Your task to perform on an android device: Go to Reddit.com Image 0: 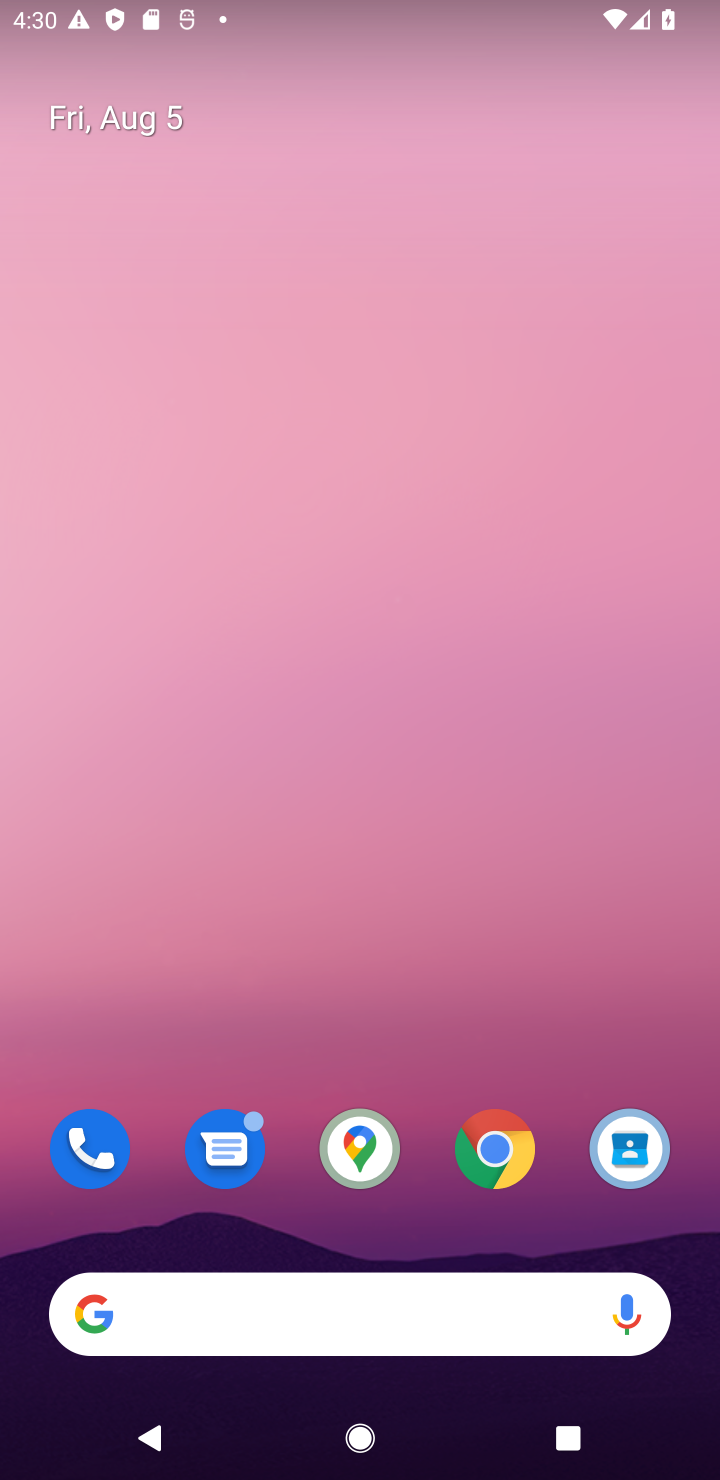
Step 0: click (500, 1140)
Your task to perform on an android device: Go to Reddit.com Image 1: 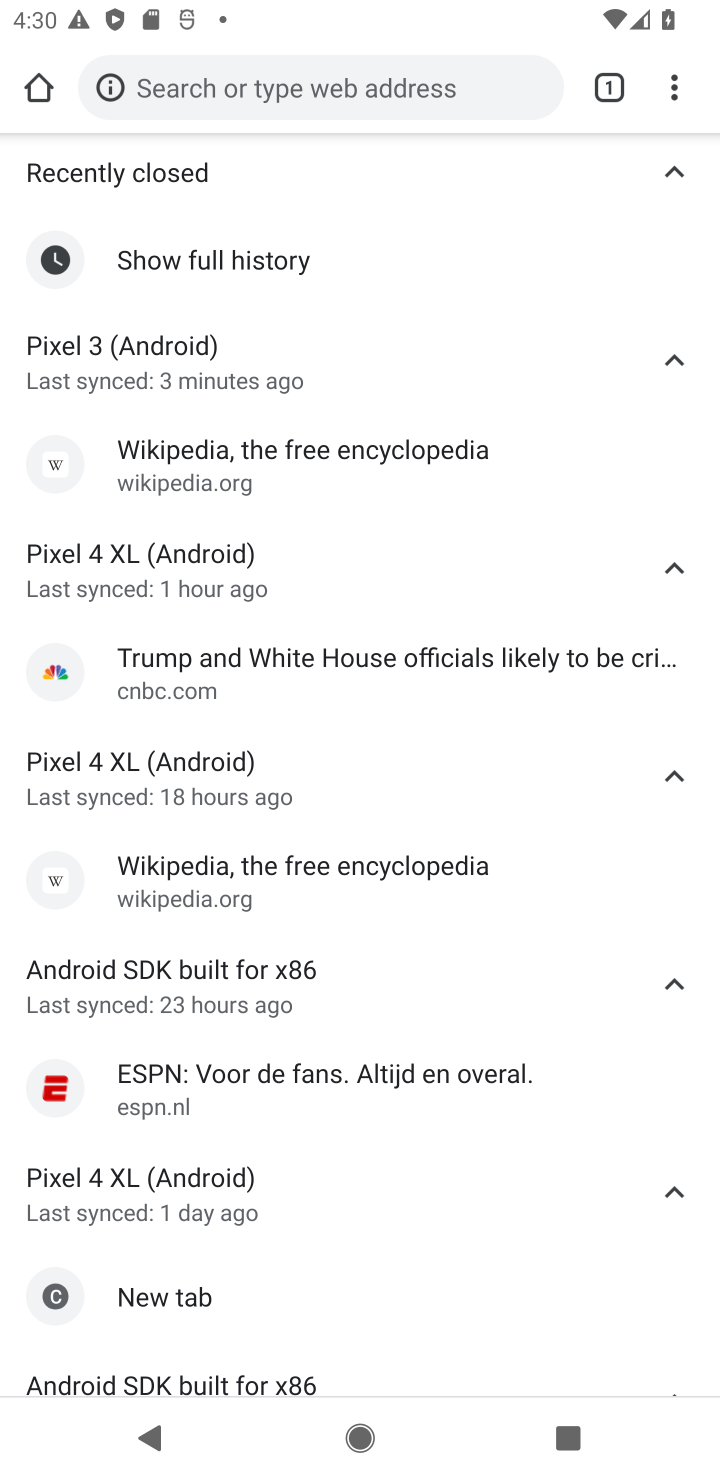
Step 1: click (607, 99)
Your task to perform on an android device: Go to Reddit.com Image 2: 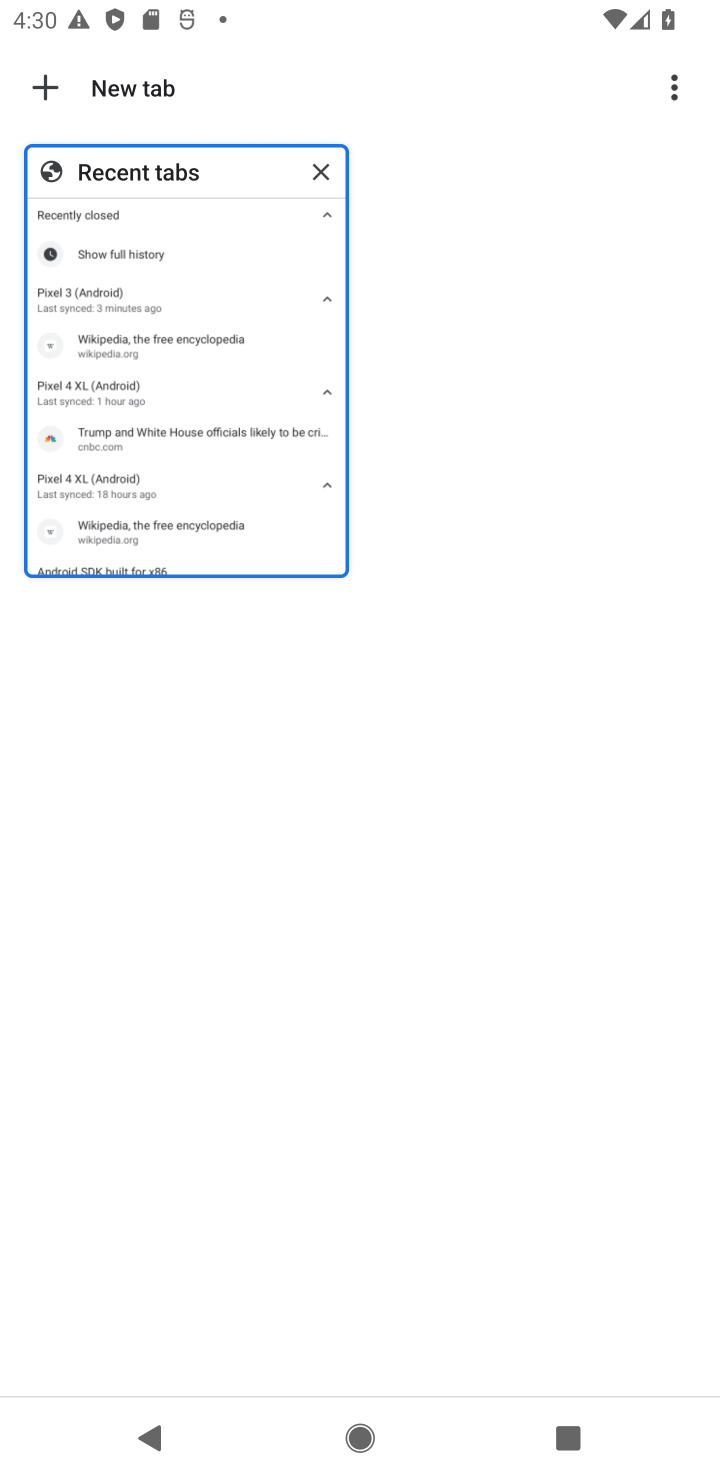
Step 2: click (61, 76)
Your task to perform on an android device: Go to Reddit.com Image 3: 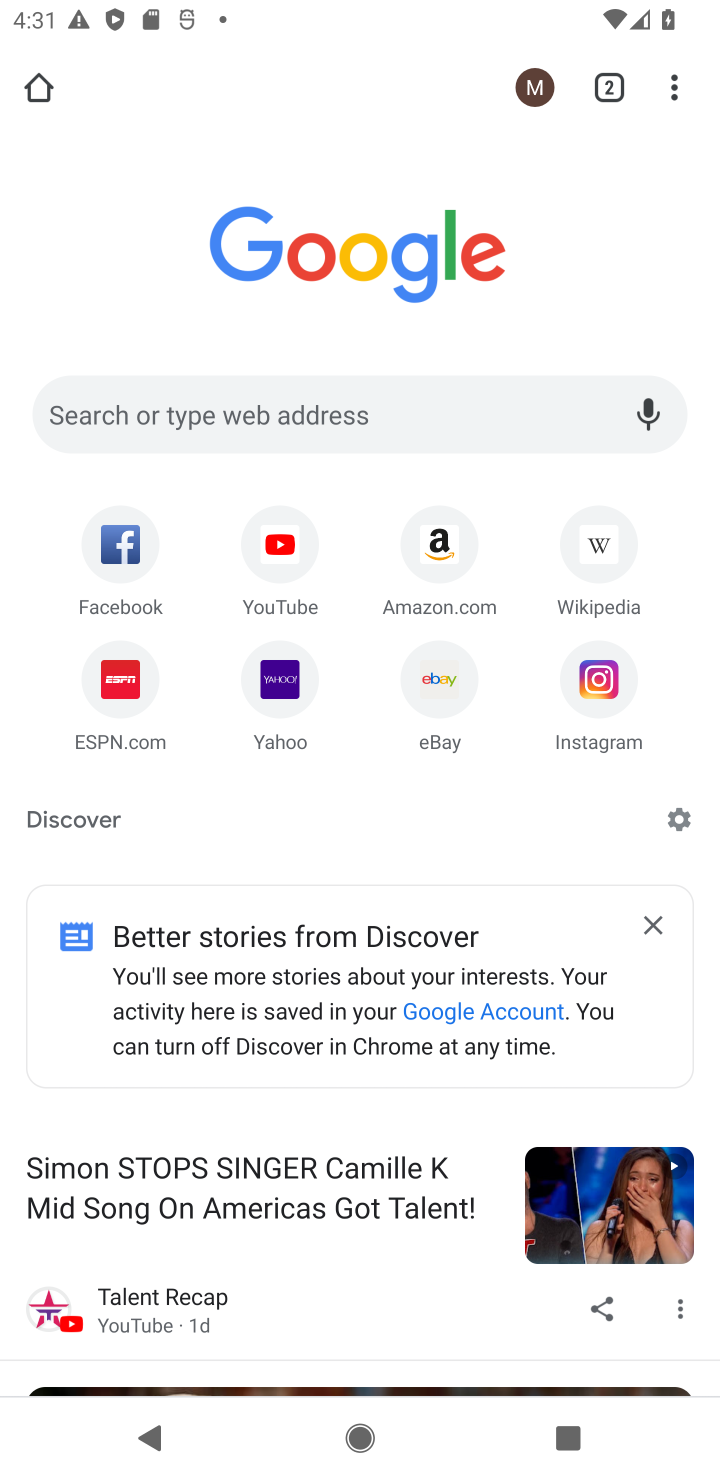
Step 3: click (196, 409)
Your task to perform on an android device: Go to Reddit.com Image 4: 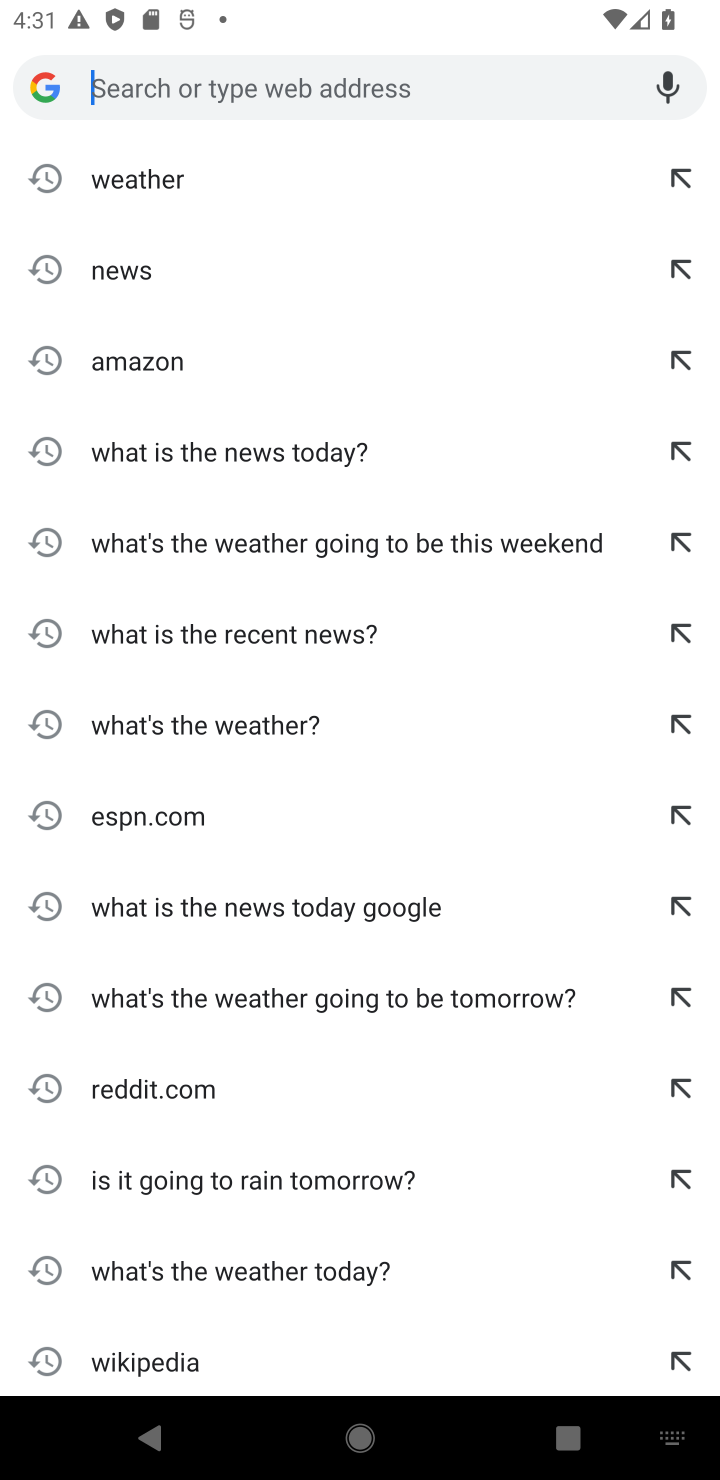
Step 4: type "reddit.com"
Your task to perform on an android device: Go to Reddit.com Image 5: 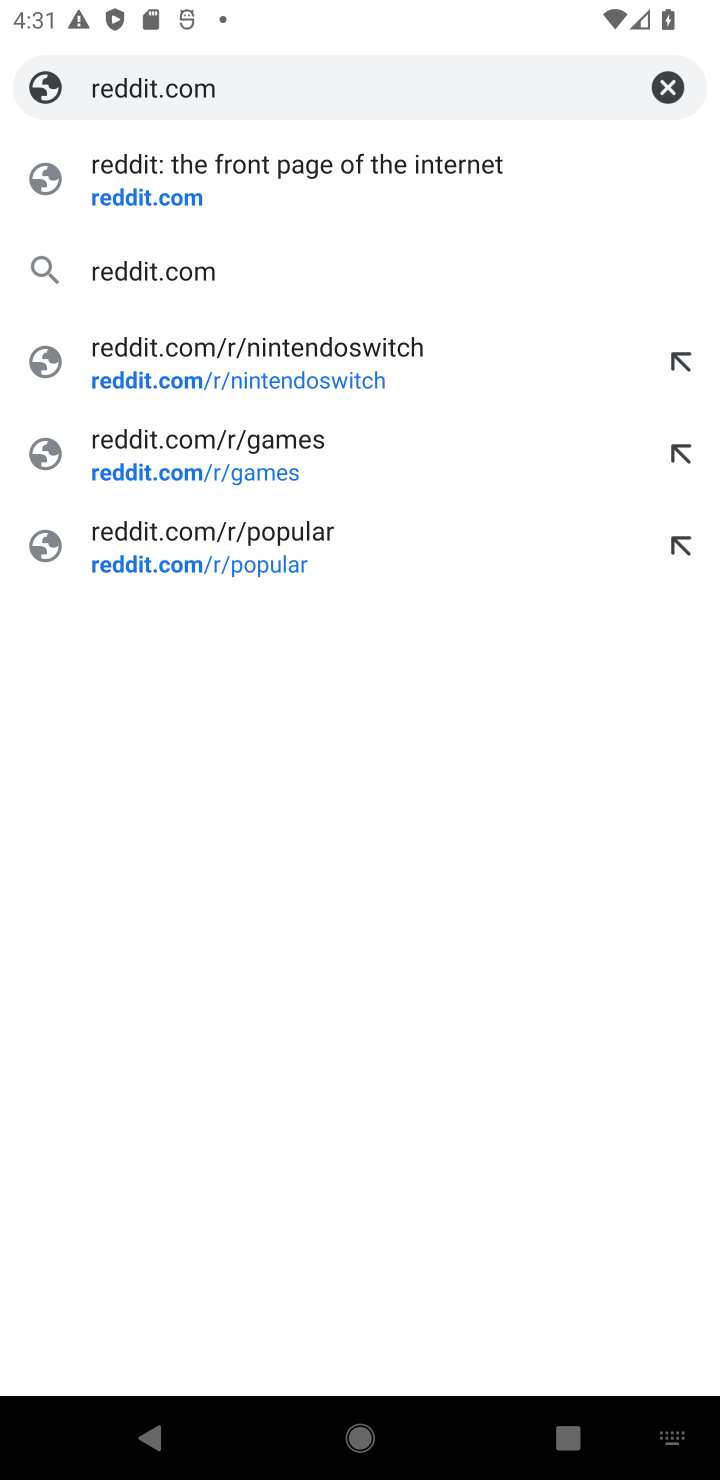
Step 5: click (243, 208)
Your task to perform on an android device: Go to Reddit.com Image 6: 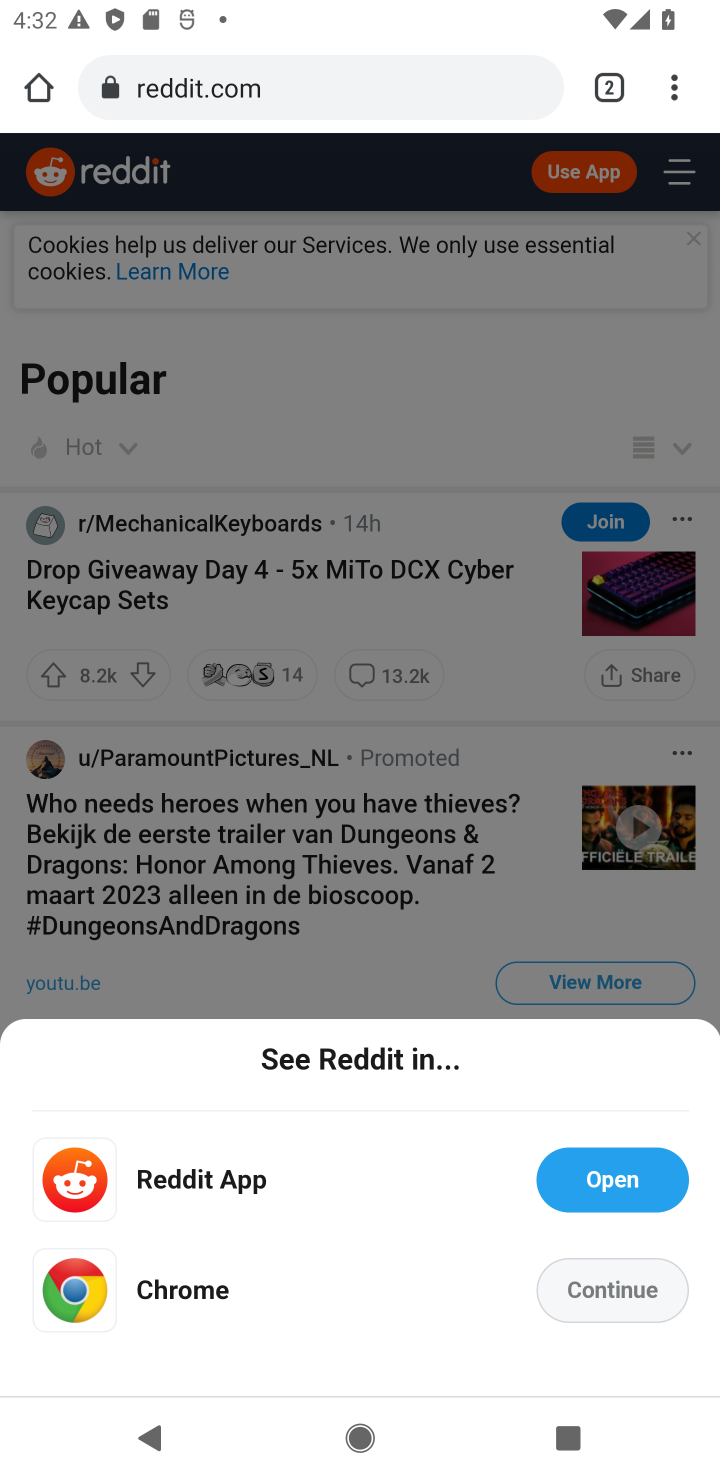
Step 6: task complete